Your task to perform on an android device: turn pop-ups off in chrome Image 0: 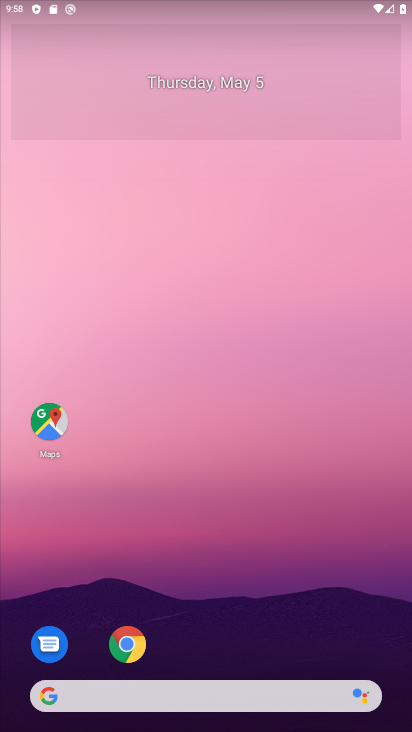
Step 0: click (132, 635)
Your task to perform on an android device: turn pop-ups off in chrome Image 1: 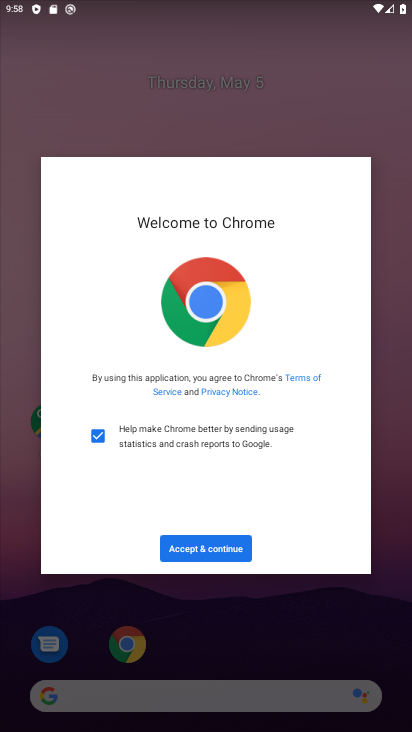
Step 1: click (194, 543)
Your task to perform on an android device: turn pop-ups off in chrome Image 2: 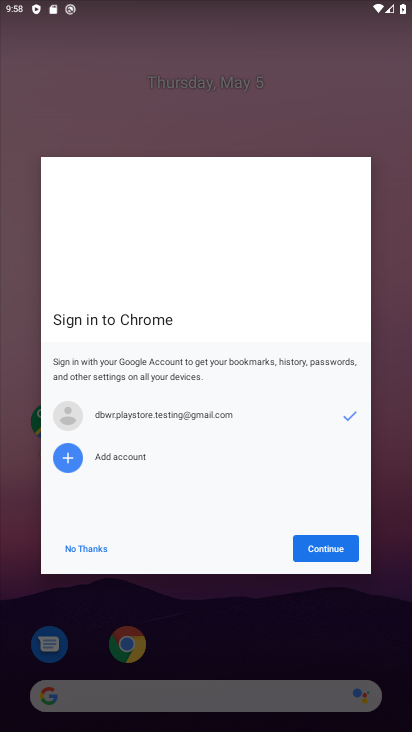
Step 2: click (342, 541)
Your task to perform on an android device: turn pop-ups off in chrome Image 3: 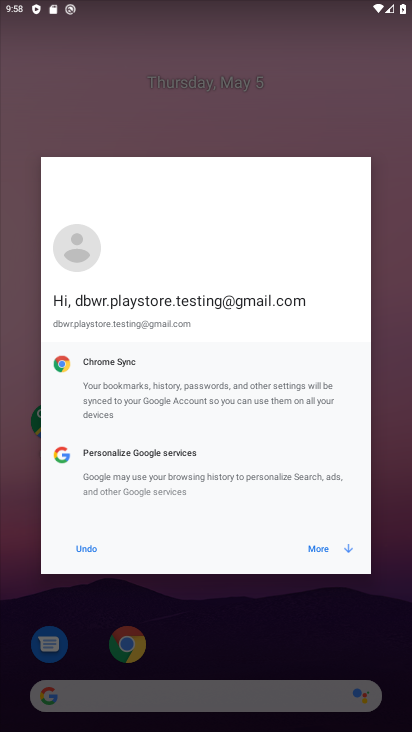
Step 3: click (342, 541)
Your task to perform on an android device: turn pop-ups off in chrome Image 4: 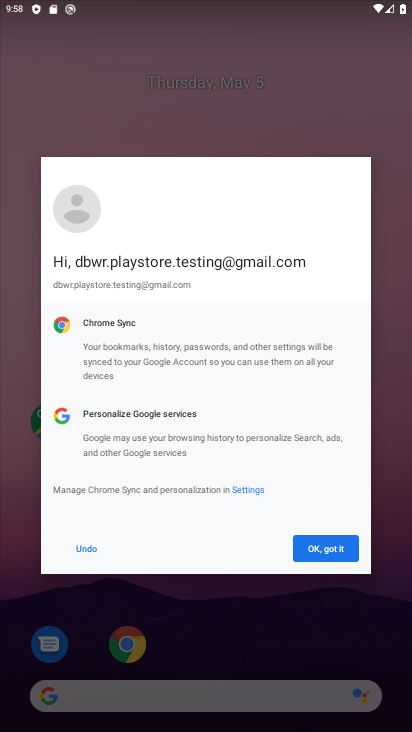
Step 4: click (342, 541)
Your task to perform on an android device: turn pop-ups off in chrome Image 5: 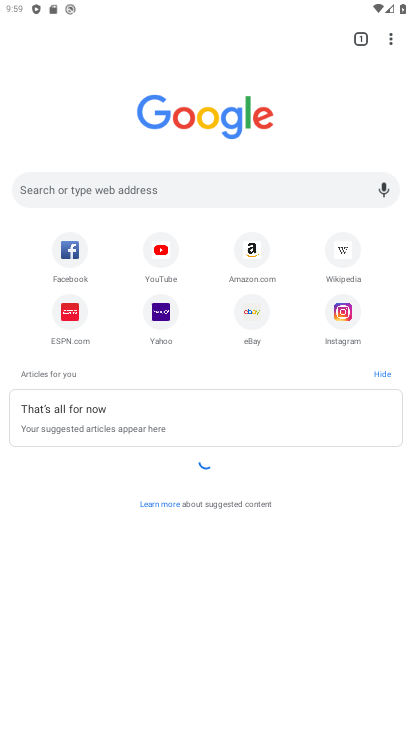
Step 5: click (391, 43)
Your task to perform on an android device: turn pop-ups off in chrome Image 6: 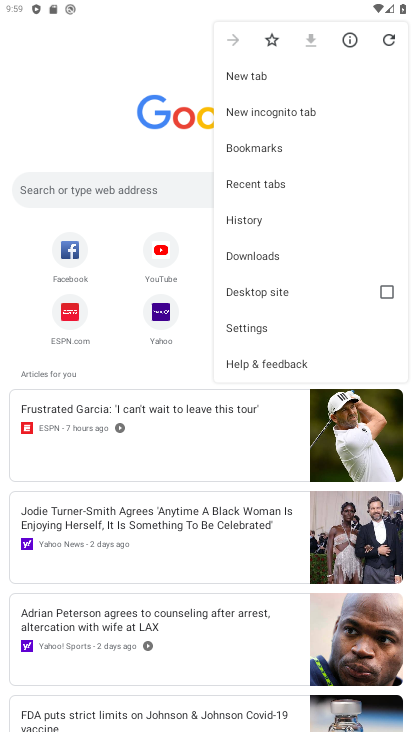
Step 6: click (391, 43)
Your task to perform on an android device: turn pop-ups off in chrome Image 7: 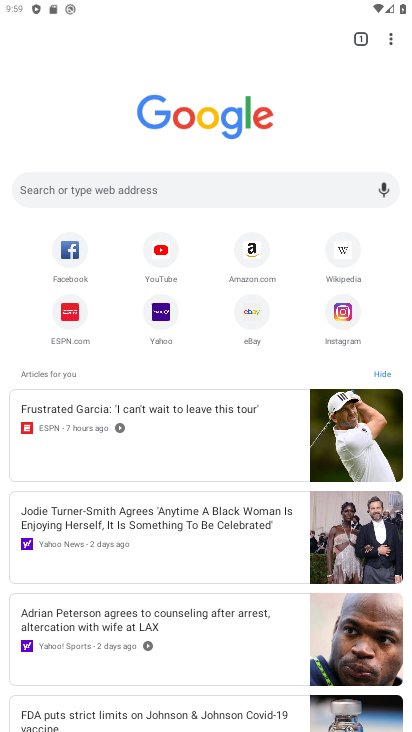
Step 7: click (391, 43)
Your task to perform on an android device: turn pop-ups off in chrome Image 8: 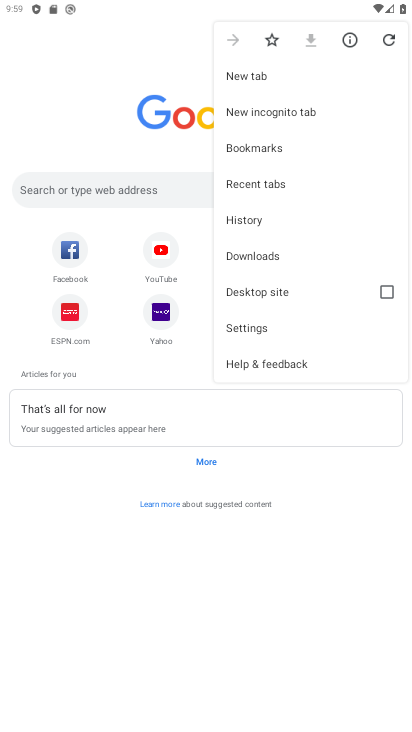
Step 8: click (247, 333)
Your task to perform on an android device: turn pop-ups off in chrome Image 9: 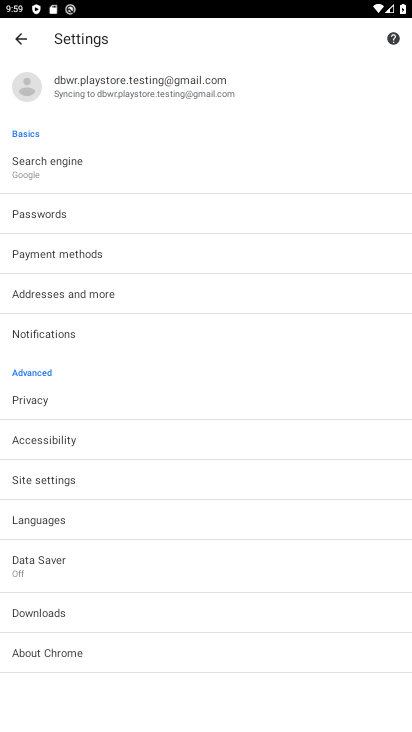
Step 9: click (27, 481)
Your task to perform on an android device: turn pop-ups off in chrome Image 10: 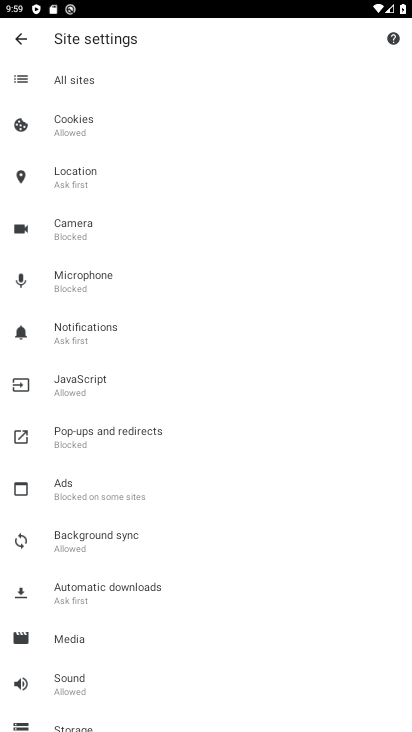
Step 10: click (63, 426)
Your task to perform on an android device: turn pop-ups off in chrome Image 11: 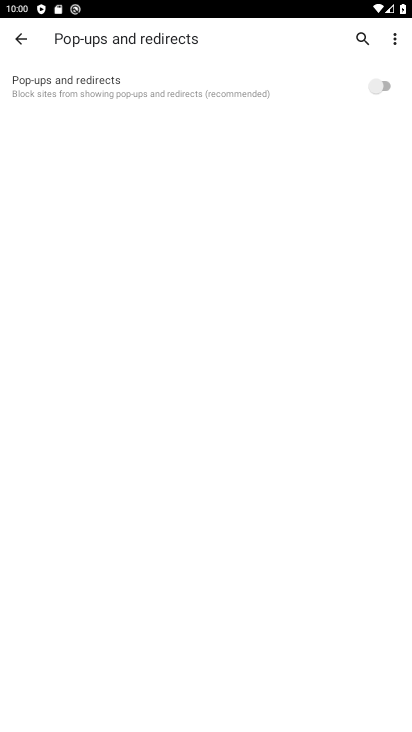
Step 11: task complete